Your task to perform on an android device: What's the weather going to be tomorrow? Image 0: 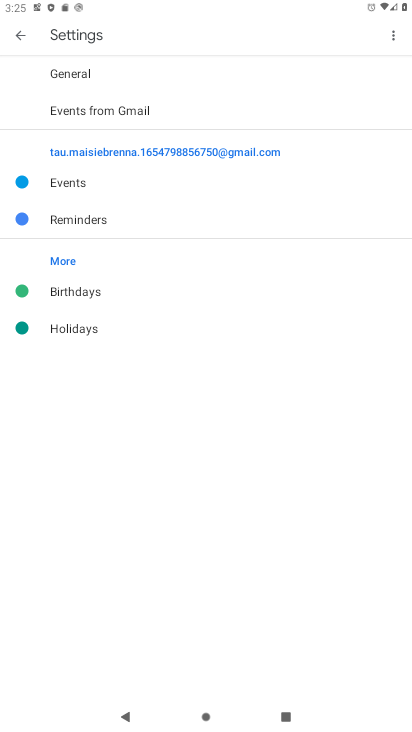
Step 0: press home button
Your task to perform on an android device: What's the weather going to be tomorrow? Image 1: 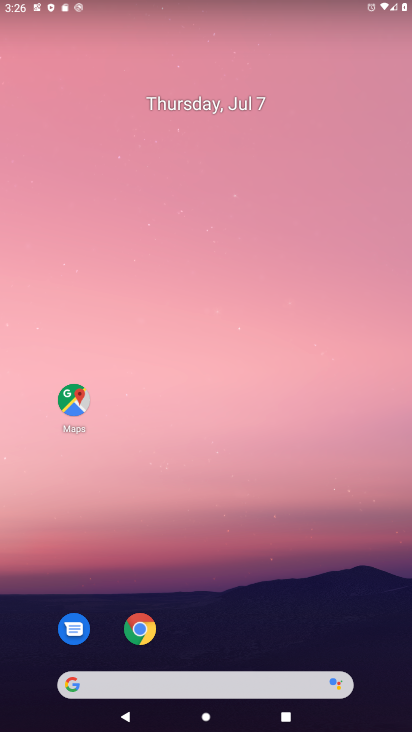
Step 1: click (144, 621)
Your task to perform on an android device: What's the weather going to be tomorrow? Image 2: 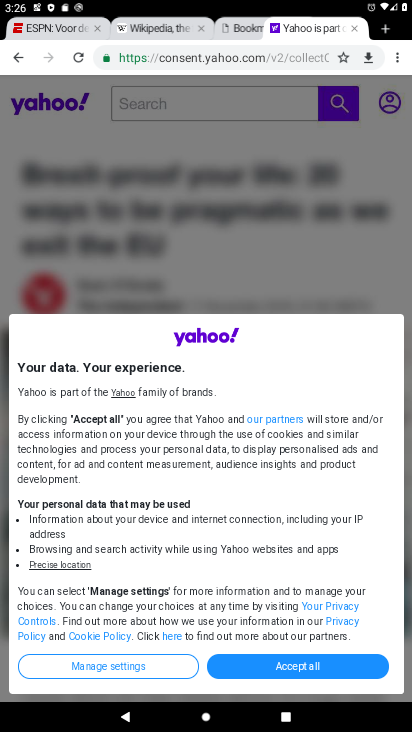
Step 2: click (403, 52)
Your task to perform on an android device: What's the weather going to be tomorrow? Image 3: 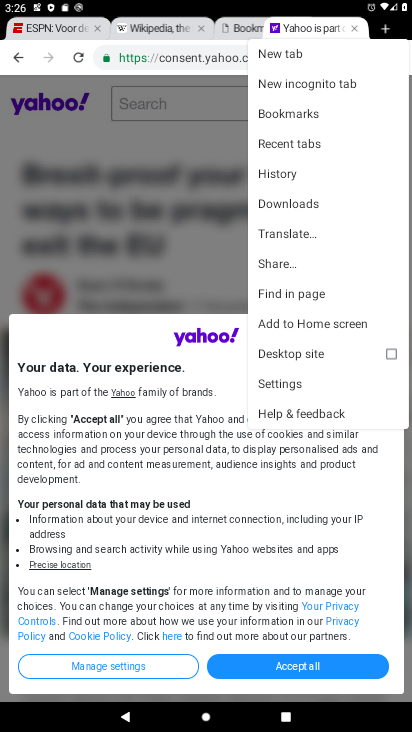
Step 3: click (266, 59)
Your task to perform on an android device: What's the weather going to be tomorrow? Image 4: 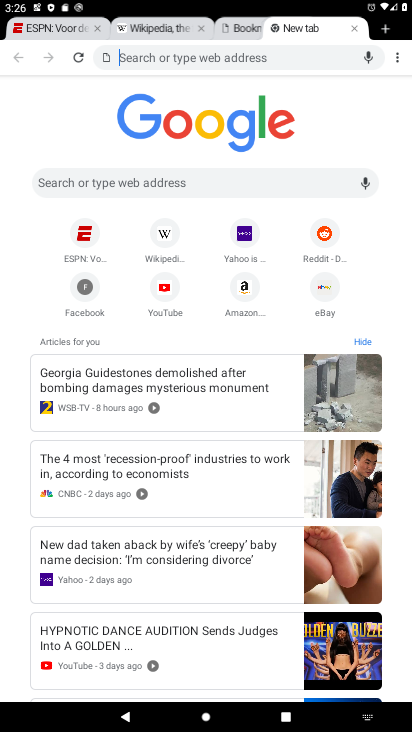
Step 4: click (250, 179)
Your task to perform on an android device: What's the weather going to be tomorrow? Image 5: 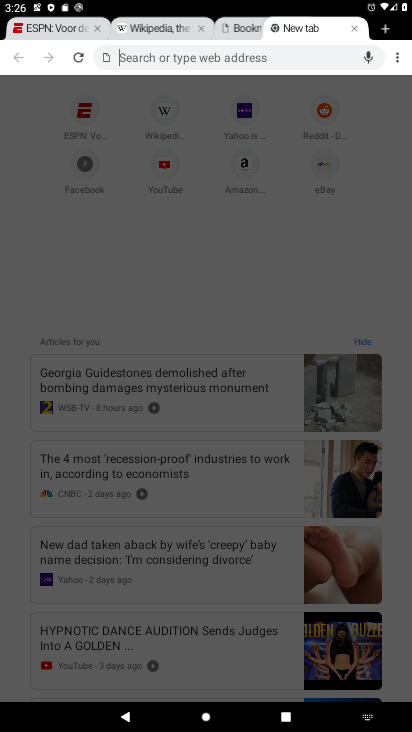
Step 5: type "tomorrow weather"
Your task to perform on an android device: What's the weather going to be tomorrow? Image 6: 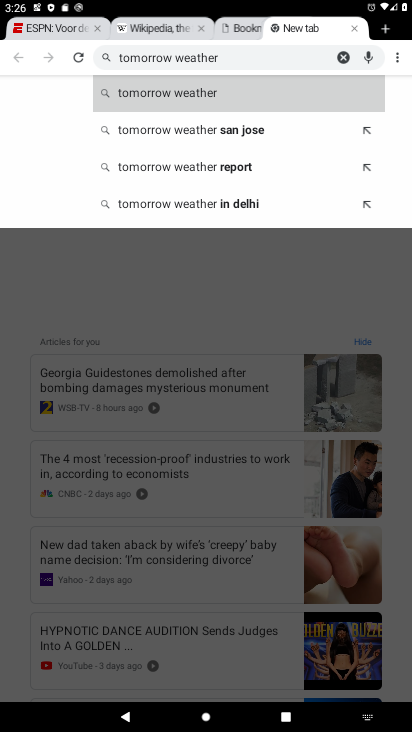
Step 6: click (267, 94)
Your task to perform on an android device: What's the weather going to be tomorrow? Image 7: 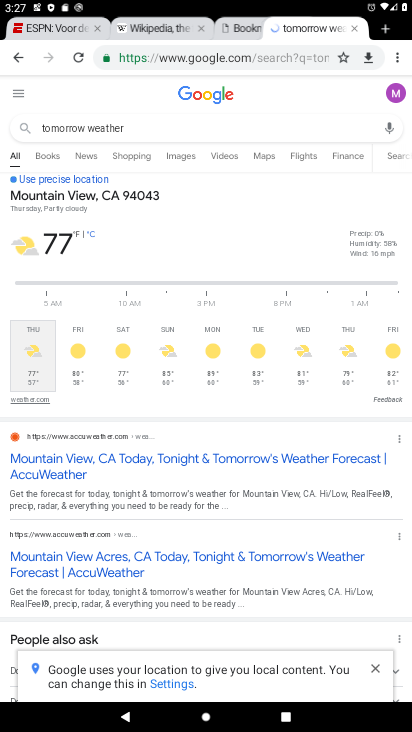
Step 7: task complete